Your task to perform on an android device: Open internet settings Image 0: 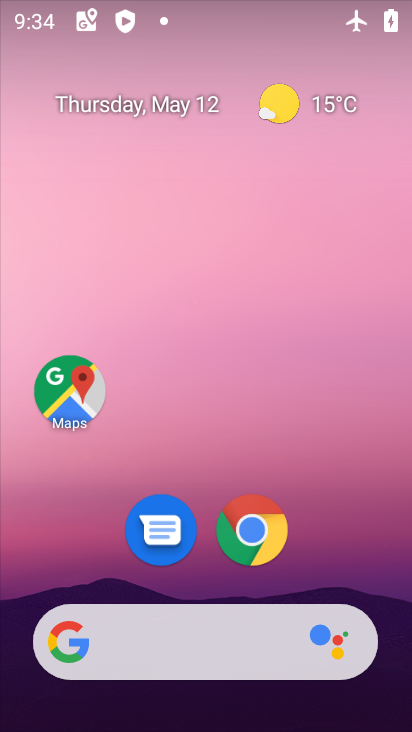
Step 0: drag from (228, 689) to (254, 61)
Your task to perform on an android device: Open internet settings Image 1: 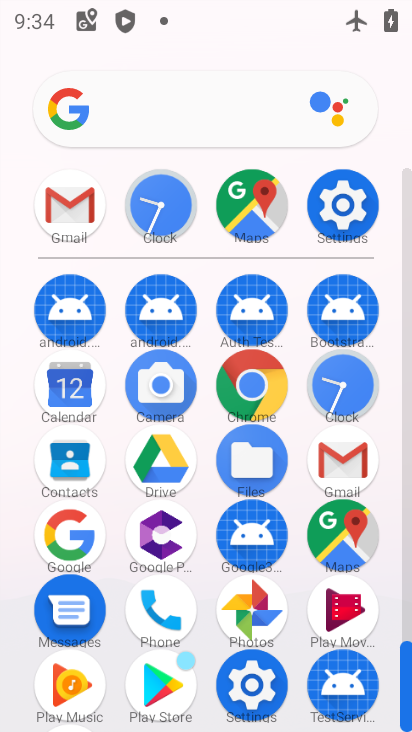
Step 1: click (342, 203)
Your task to perform on an android device: Open internet settings Image 2: 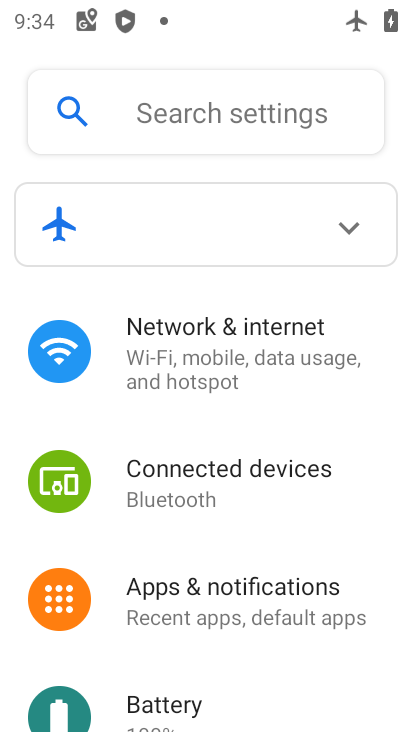
Step 2: click (242, 347)
Your task to perform on an android device: Open internet settings Image 3: 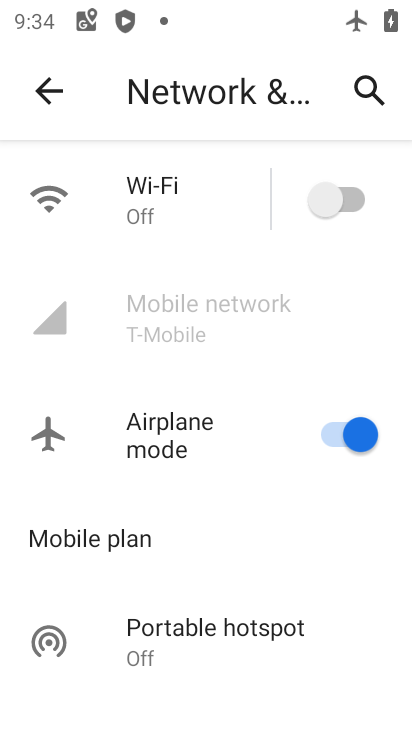
Step 3: task complete